Your task to perform on an android device: Search for lg ultragear on costco, select the first entry, and add it to the cart. Image 0: 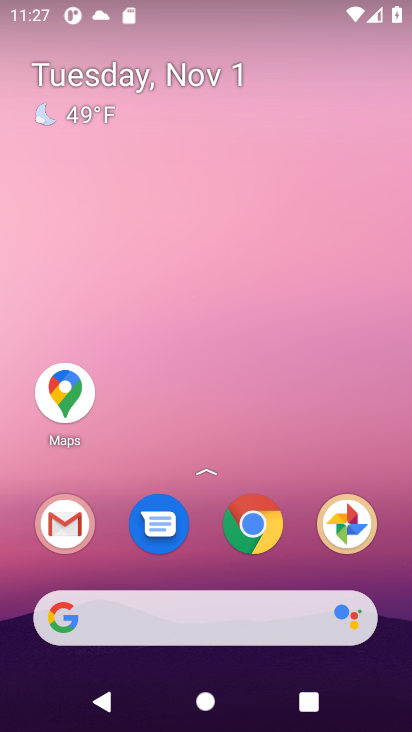
Step 0: press home button
Your task to perform on an android device: Search for lg ultragear on costco, select the first entry, and add it to the cart. Image 1: 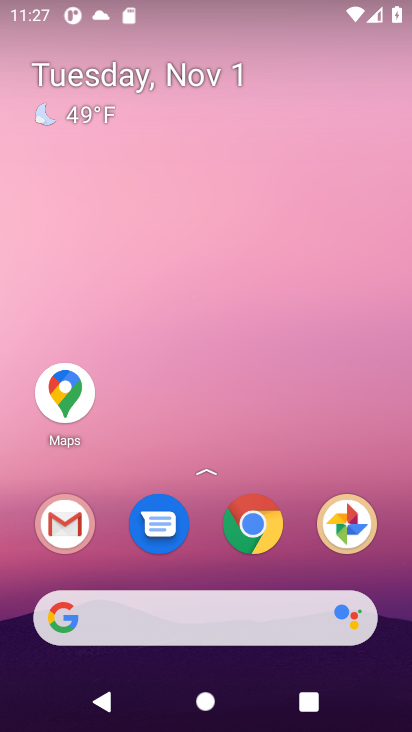
Step 1: click (96, 620)
Your task to perform on an android device: Search for lg ultragear on costco, select the first entry, and add it to the cart. Image 2: 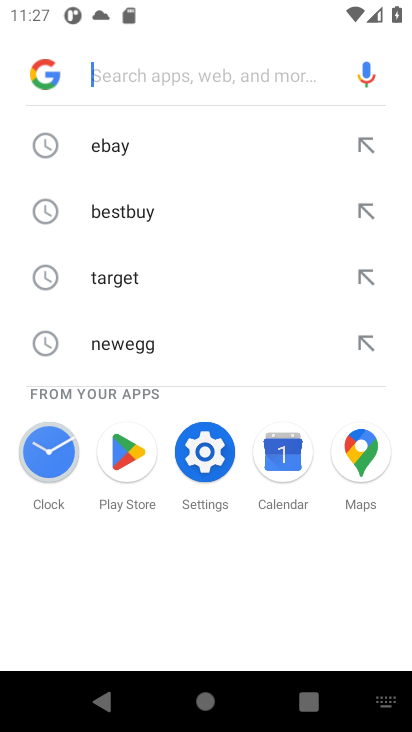
Step 2: type "costco"
Your task to perform on an android device: Search for lg ultragear on costco, select the first entry, and add it to the cart. Image 3: 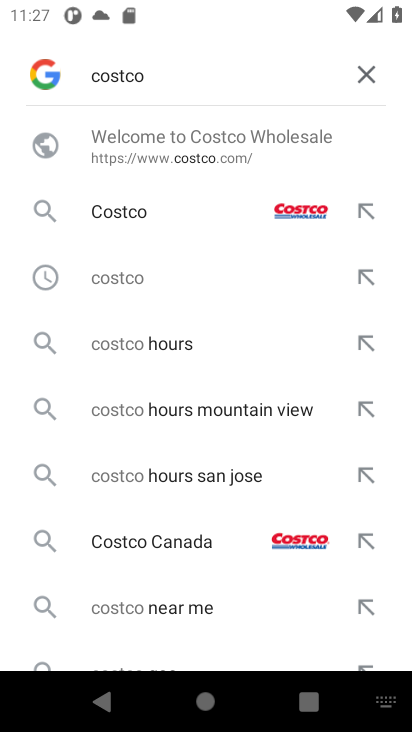
Step 3: press enter
Your task to perform on an android device: Search for lg ultragear on costco, select the first entry, and add it to the cart. Image 4: 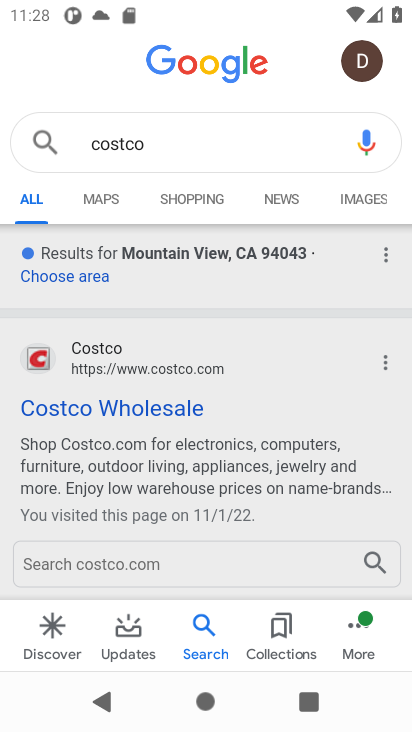
Step 4: click (166, 415)
Your task to perform on an android device: Search for lg ultragear on costco, select the first entry, and add it to the cart. Image 5: 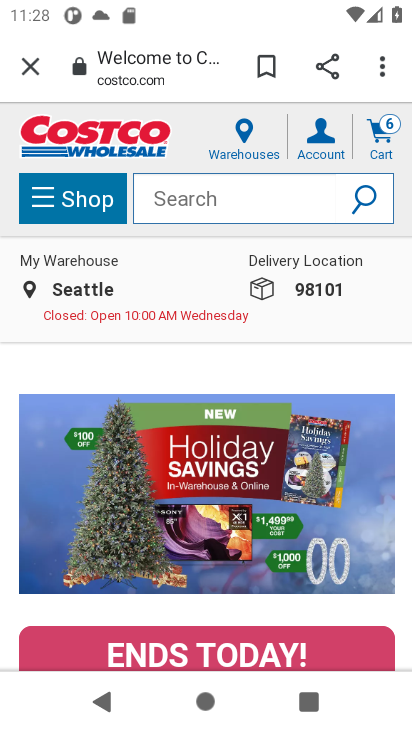
Step 5: click (195, 206)
Your task to perform on an android device: Search for lg ultragear on costco, select the first entry, and add it to the cart. Image 6: 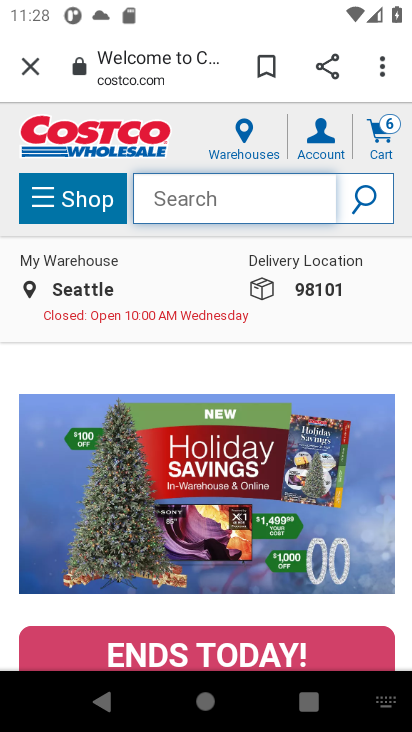
Step 6: type "lg ultragea"
Your task to perform on an android device: Search for lg ultragear on costco, select the first entry, and add it to the cart. Image 7: 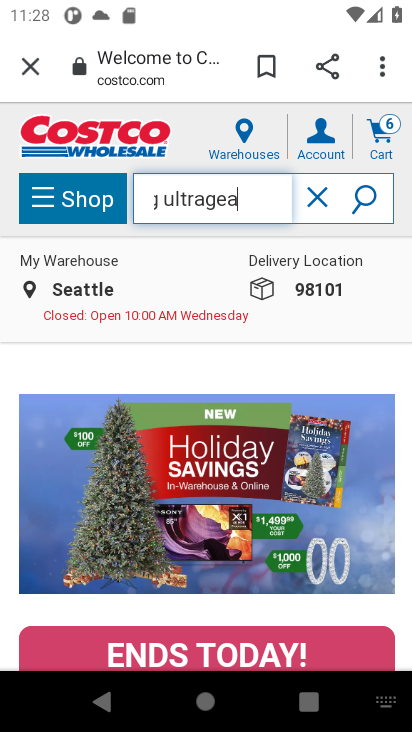
Step 7: press enter
Your task to perform on an android device: Search for lg ultragear on costco, select the first entry, and add it to the cart. Image 8: 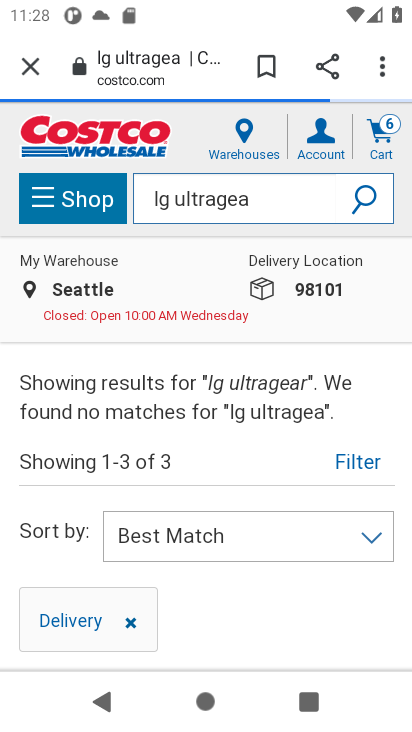
Step 8: drag from (266, 508) to (270, 300)
Your task to perform on an android device: Search for lg ultragear on costco, select the first entry, and add it to the cart. Image 9: 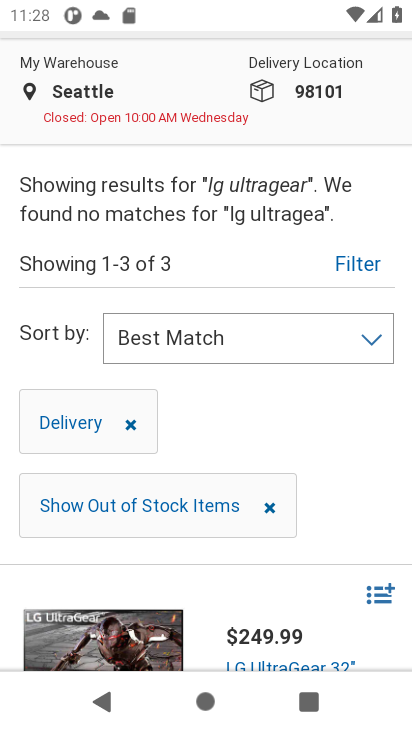
Step 9: drag from (252, 574) to (255, 266)
Your task to perform on an android device: Search for lg ultragear on costco, select the first entry, and add it to the cart. Image 10: 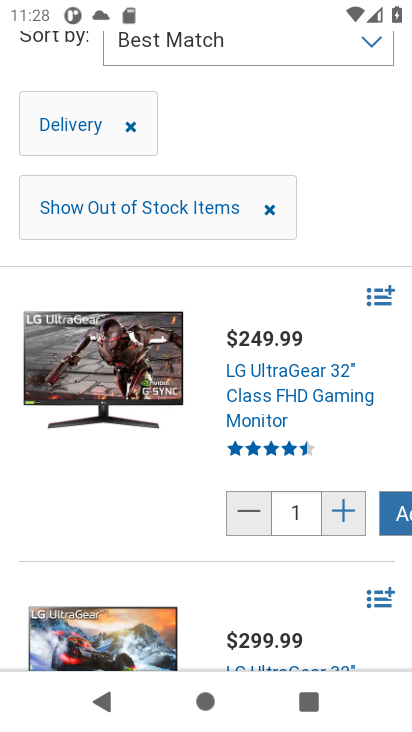
Step 10: drag from (212, 551) to (230, 396)
Your task to perform on an android device: Search for lg ultragear on costco, select the first entry, and add it to the cart. Image 11: 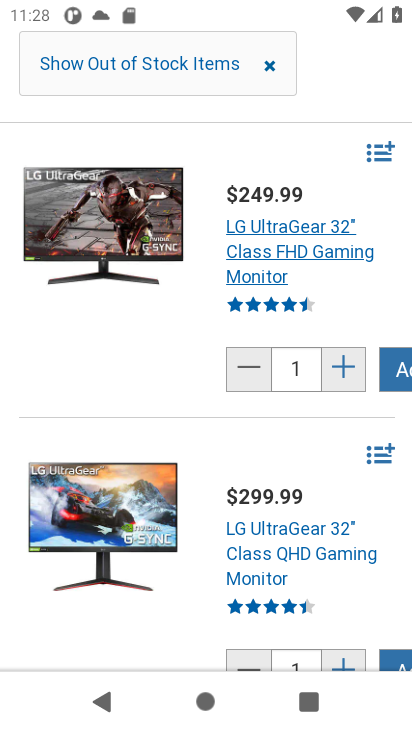
Step 11: click (396, 370)
Your task to perform on an android device: Search for lg ultragear on costco, select the first entry, and add it to the cart. Image 12: 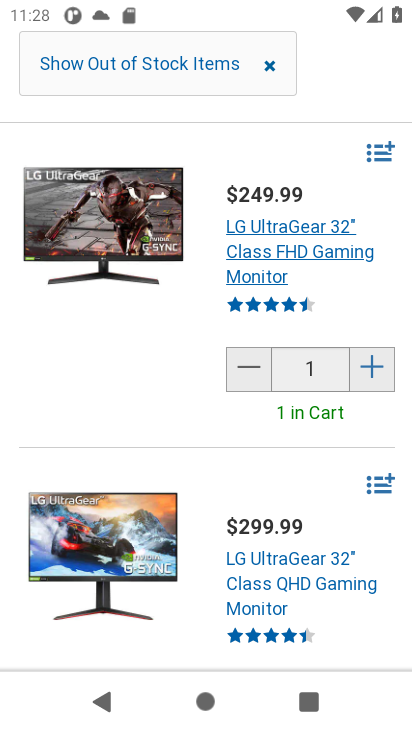
Step 12: task complete